Your task to perform on an android device: Open maps Image 0: 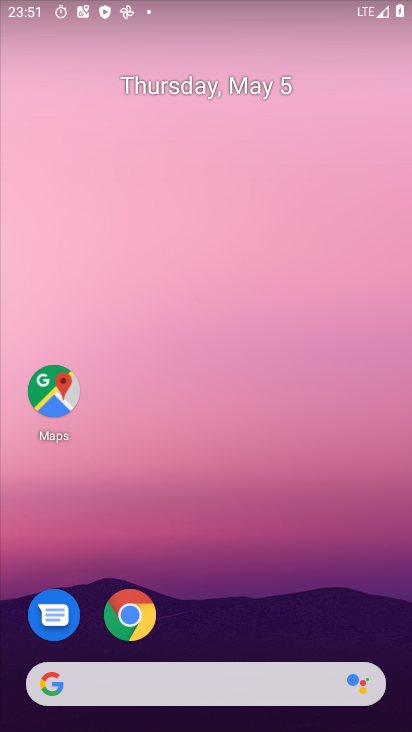
Step 0: click (48, 393)
Your task to perform on an android device: Open maps Image 1: 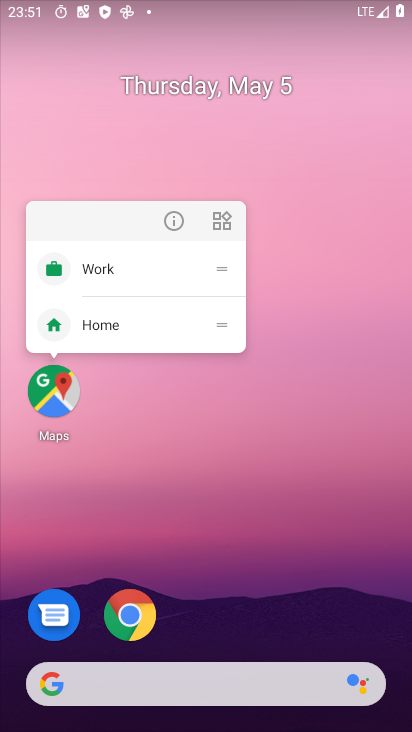
Step 1: click (50, 393)
Your task to perform on an android device: Open maps Image 2: 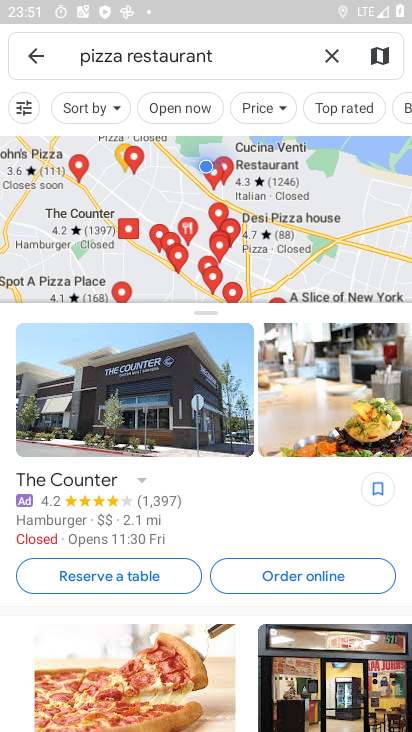
Step 2: task complete